Your task to perform on an android device: clear history in the chrome app Image 0: 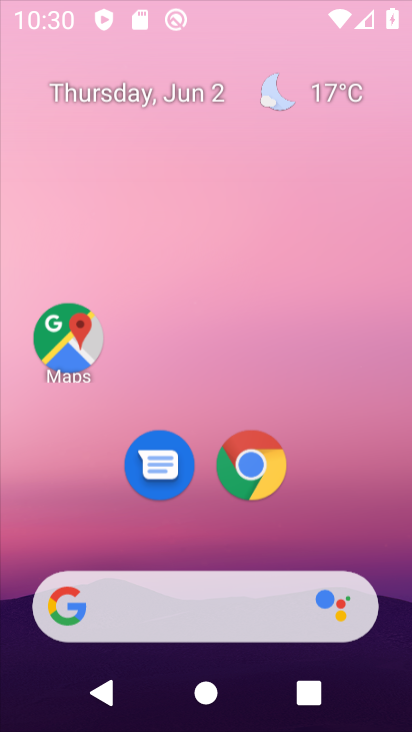
Step 0: press home button
Your task to perform on an android device: clear history in the chrome app Image 1: 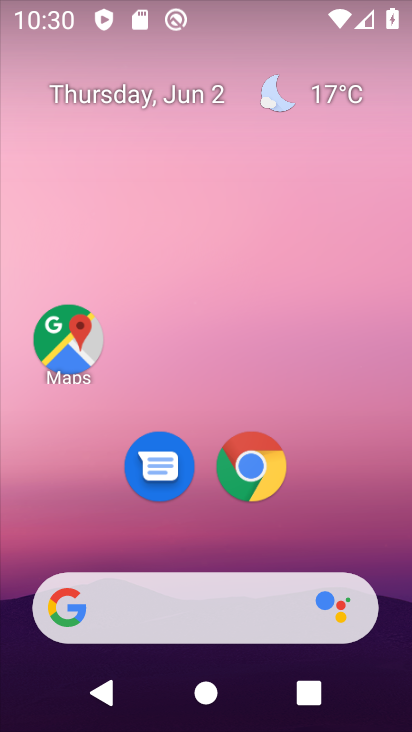
Step 1: click (259, 463)
Your task to perform on an android device: clear history in the chrome app Image 2: 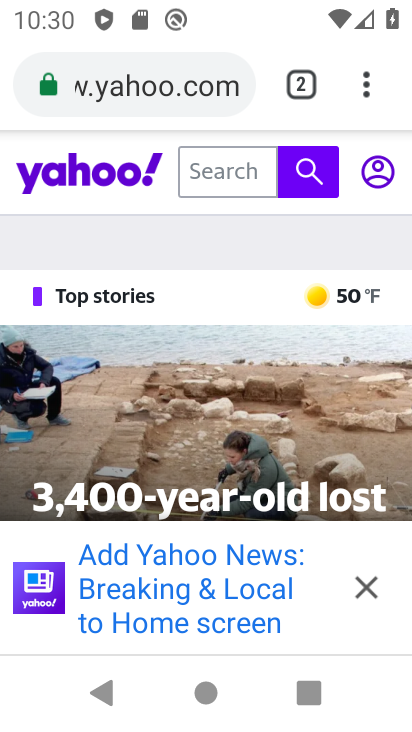
Step 2: drag from (362, 79) to (87, 475)
Your task to perform on an android device: clear history in the chrome app Image 3: 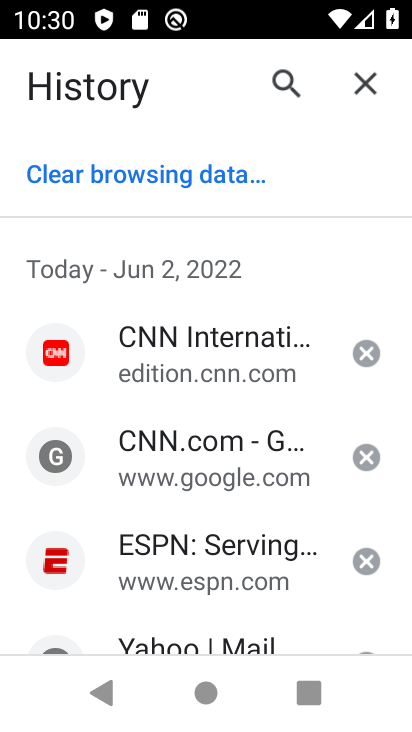
Step 3: click (149, 173)
Your task to perform on an android device: clear history in the chrome app Image 4: 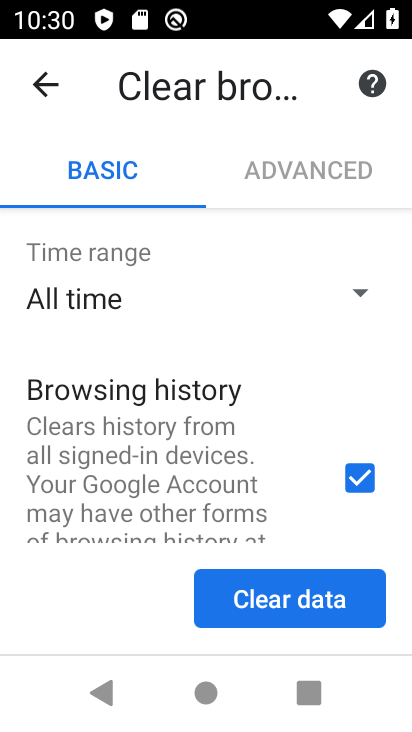
Step 4: click (284, 602)
Your task to perform on an android device: clear history in the chrome app Image 5: 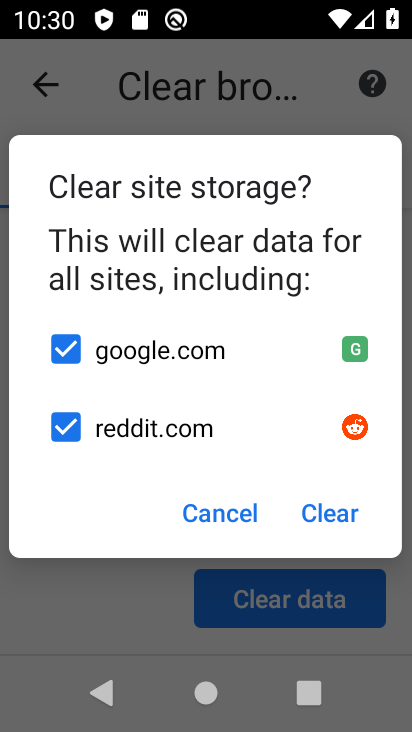
Step 5: click (333, 520)
Your task to perform on an android device: clear history in the chrome app Image 6: 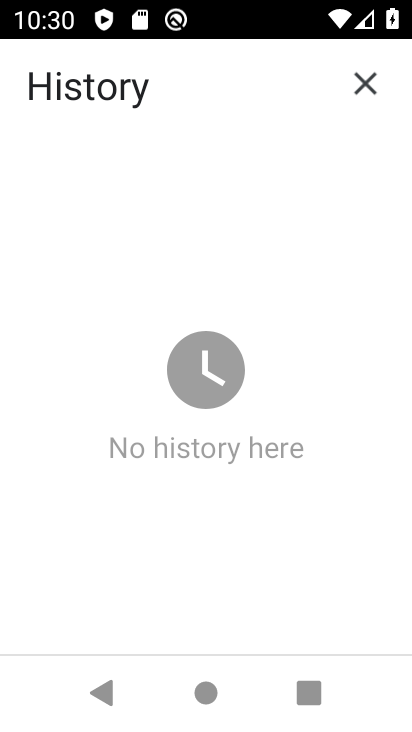
Step 6: task complete